Your task to perform on an android device: turn off picture-in-picture Image 0: 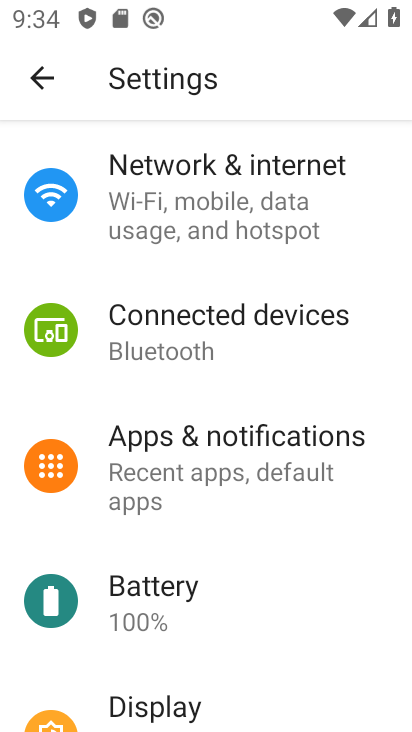
Step 0: press home button
Your task to perform on an android device: turn off picture-in-picture Image 1: 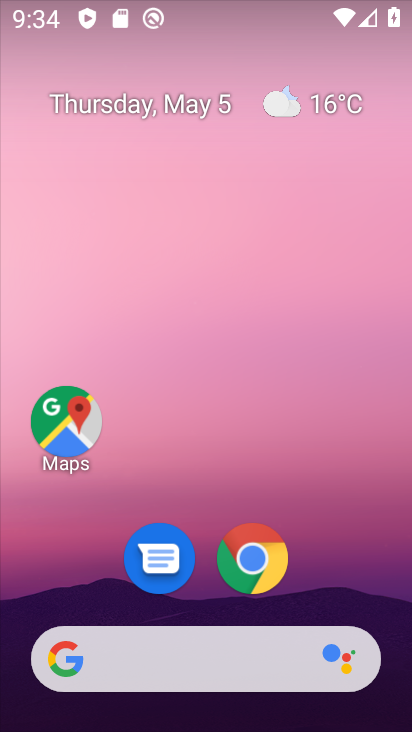
Step 1: drag from (370, 598) to (298, 192)
Your task to perform on an android device: turn off picture-in-picture Image 2: 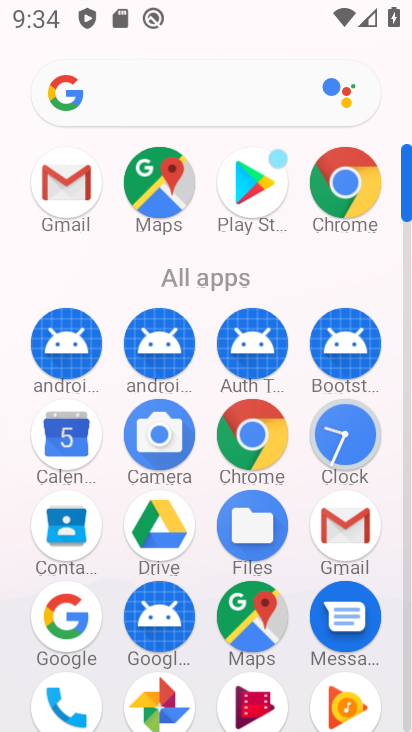
Step 2: click (354, 185)
Your task to perform on an android device: turn off picture-in-picture Image 3: 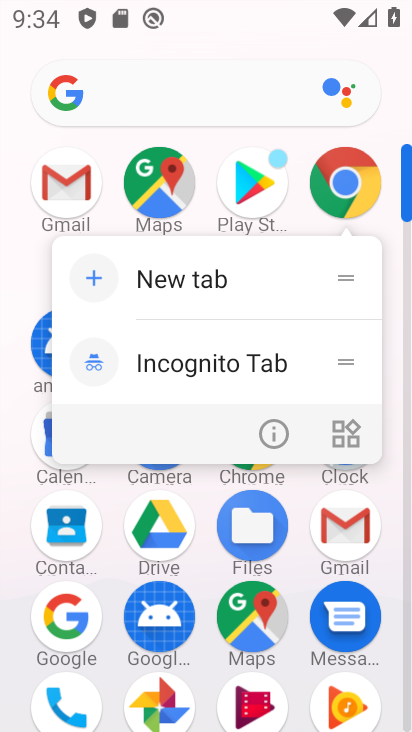
Step 3: click (281, 435)
Your task to perform on an android device: turn off picture-in-picture Image 4: 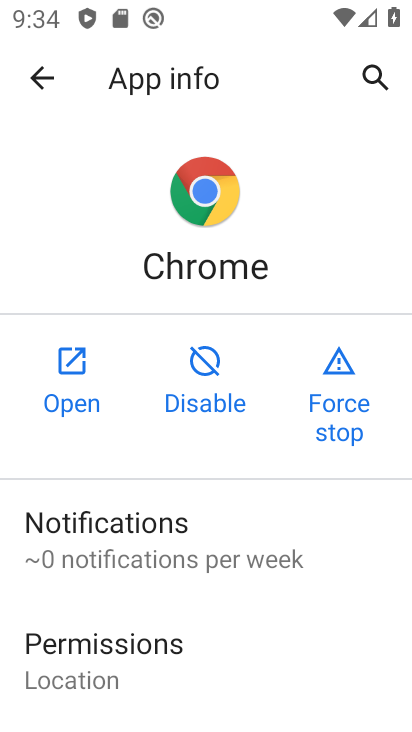
Step 4: drag from (255, 600) to (203, 293)
Your task to perform on an android device: turn off picture-in-picture Image 5: 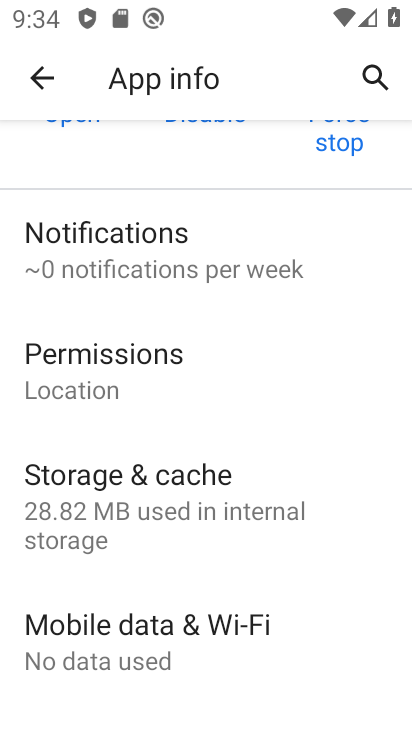
Step 5: drag from (220, 539) to (195, 278)
Your task to perform on an android device: turn off picture-in-picture Image 6: 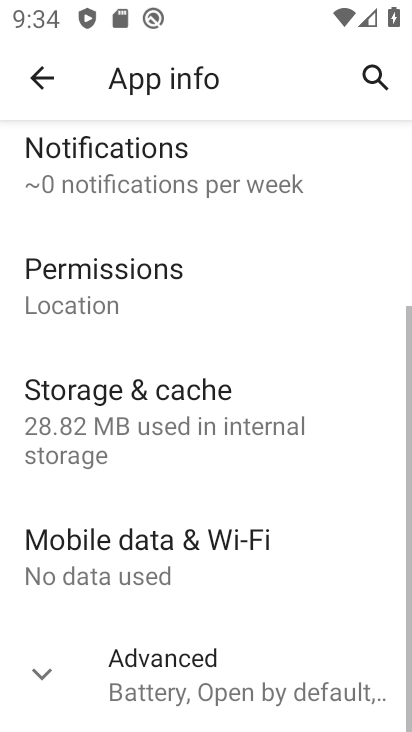
Step 6: click (227, 670)
Your task to perform on an android device: turn off picture-in-picture Image 7: 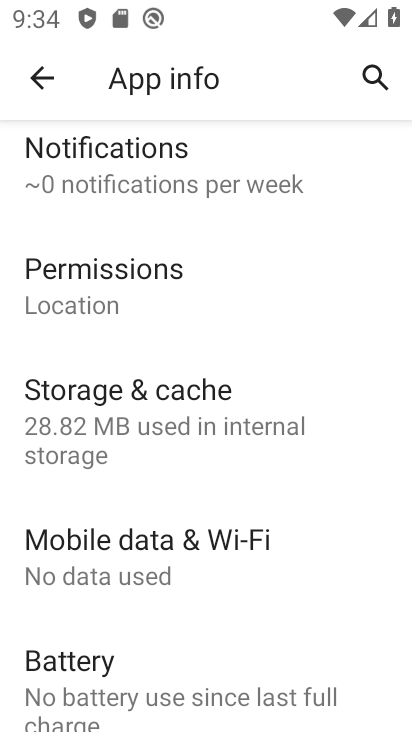
Step 7: drag from (241, 637) to (222, 215)
Your task to perform on an android device: turn off picture-in-picture Image 8: 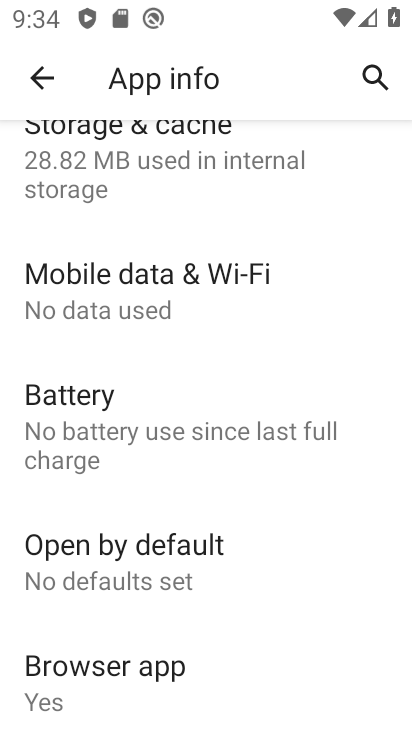
Step 8: drag from (245, 599) to (216, 157)
Your task to perform on an android device: turn off picture-in-picture Image 9: 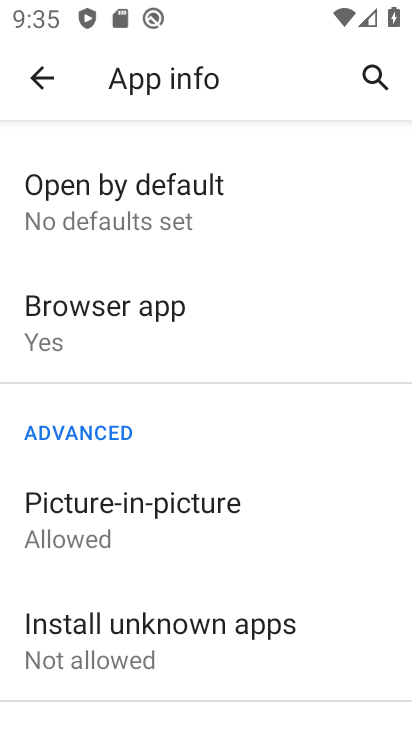
Step 9: click (179, 541)
Your task to perform on an android device: turn off picture-in-picture Image 10: 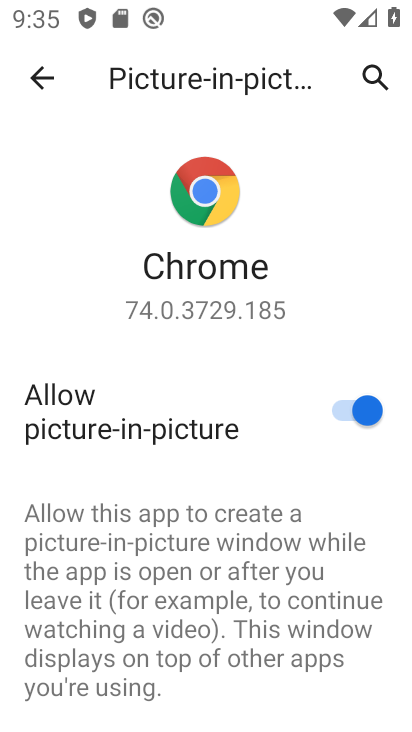
Step 10: click (357, 415)
Your task to perform on an android device: turn off picture-in-picture Image 11: 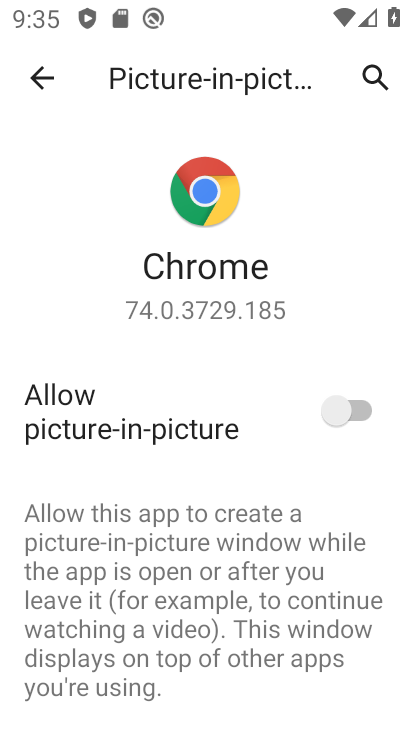
Step 11: task complete